Your task to perform on an android device: find photos in the google photos app Image 0: 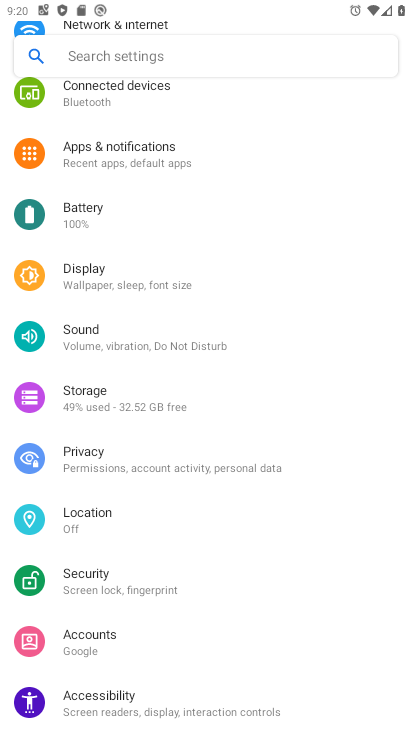
Step 0: press home button
Your task to perform on an android device: find photos in the google photos app Image 1: 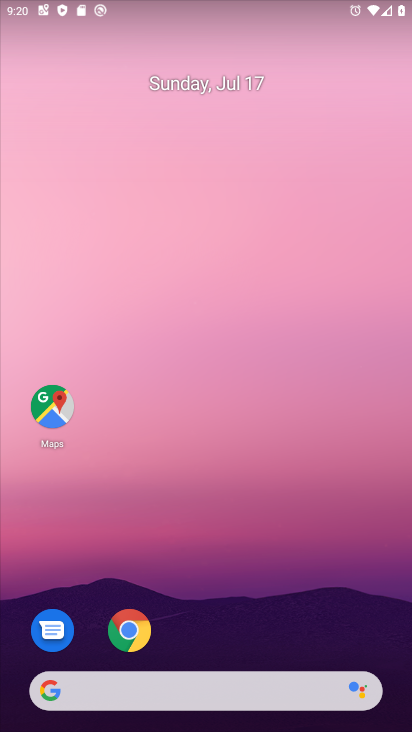
Step 1: drag from (324, 596) to (312, 59)
Your task to perform on an android device: find photos in the google photos app Image 2: 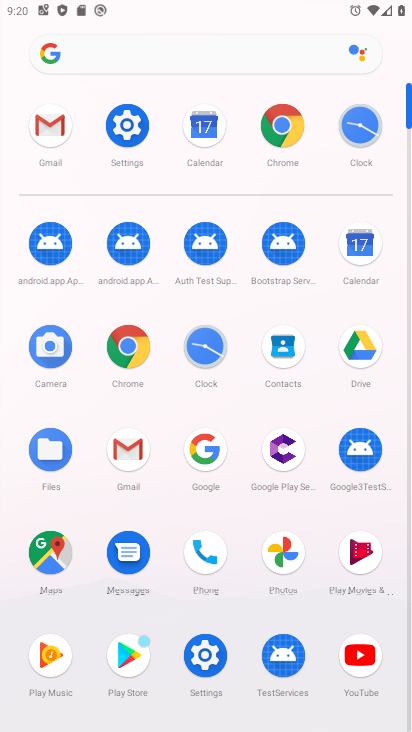
Step 2: click (299, 544)
Your task to perform on an android device: find photos in the google photos app Image 3: 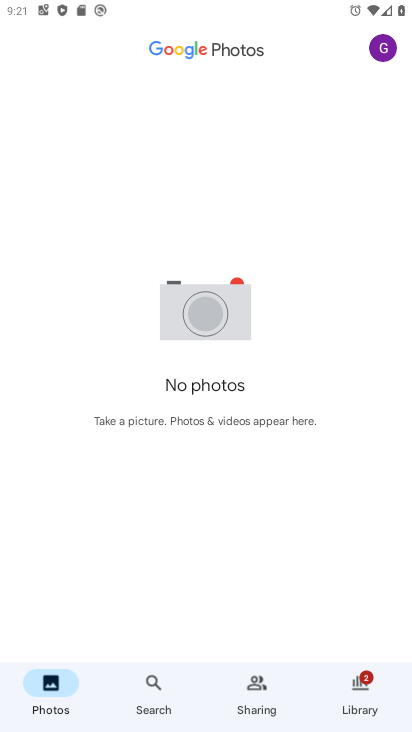
Step 3: task complete